Your task to perform on an android device: Open Chrome and go to settings Image 0: 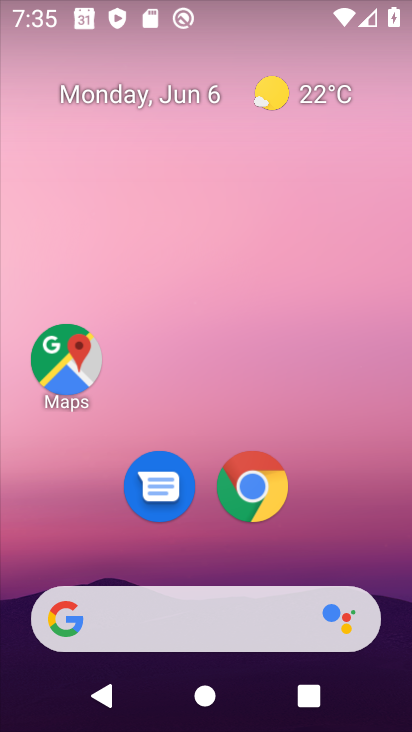
Step 0: drag from (399, 616) to (216, 62)
Your task to perform on an android device: Open Chrome and go to settings Image 1: 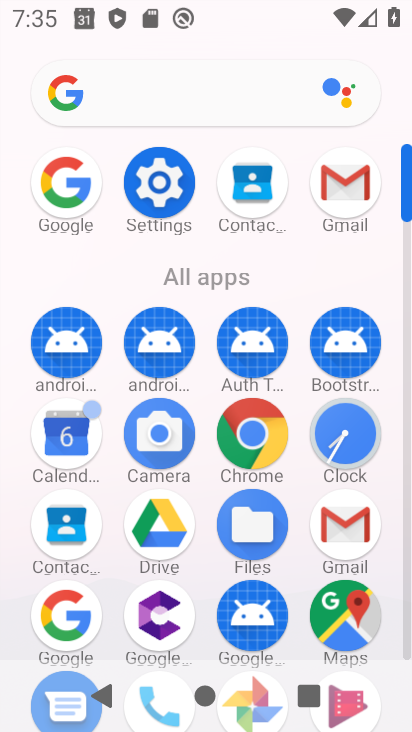
Step 1: click (252, 448)
Your task to perform on an android device: Open Chrome and go to settings Image 2: 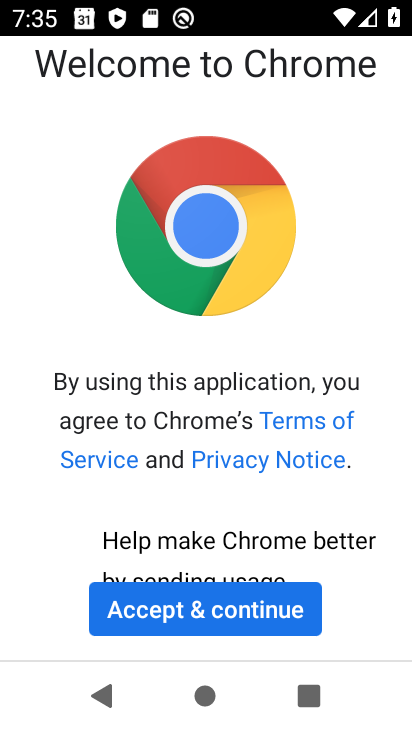
Step 2: click (227, 609)
Your task to perform on an android device: Open Chrome and go to settings Image 3: 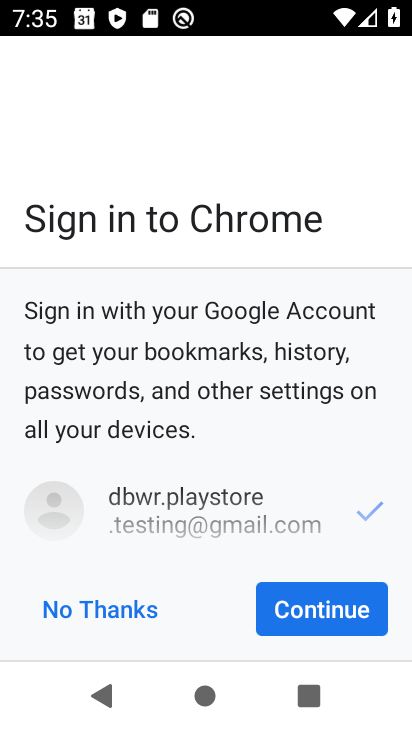
Step 3: click (287, 600)
Your task to perform on an android device: Open Chrome and go to settings Image 4: 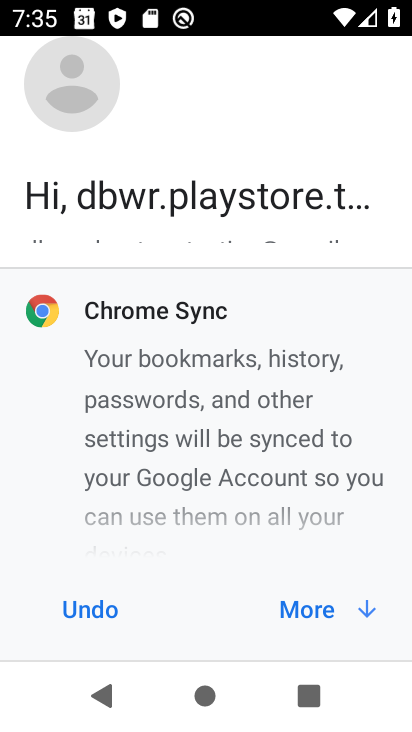
Step 4: click (287, 600)
Your task to perform on an android device: Open Chrome and go to settings Image 5: 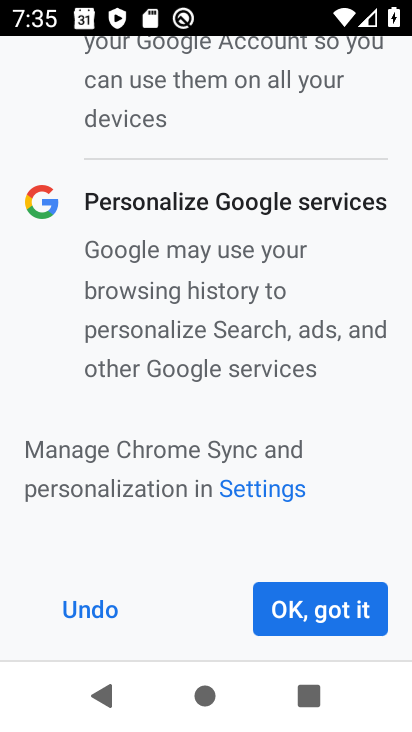
Step 5: click (287, 600)
Your task to perform on an android device: Open Chrome and go to settings Image 6: 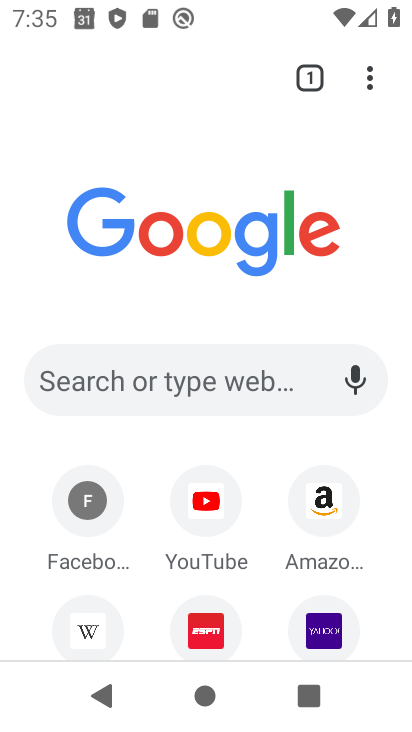
Step 6: click (370, 71)
Your task to perform on an android device: Open Chrome and go to settings Image 7: 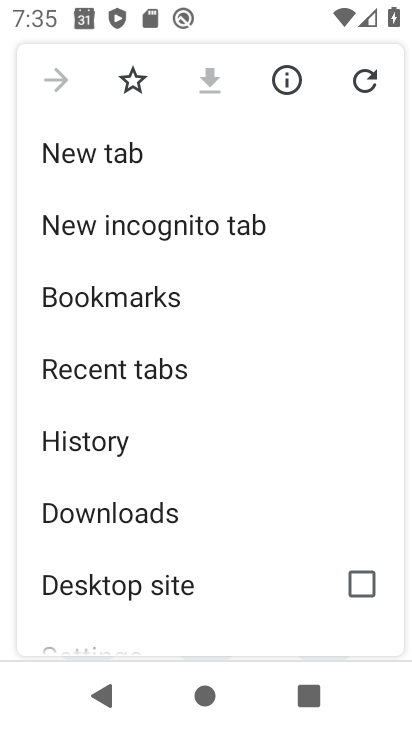
Step 7: drag from (141, 583) to (154, 174)
Your task to perform on an android device: Open Chrome and go to settings Image 8: 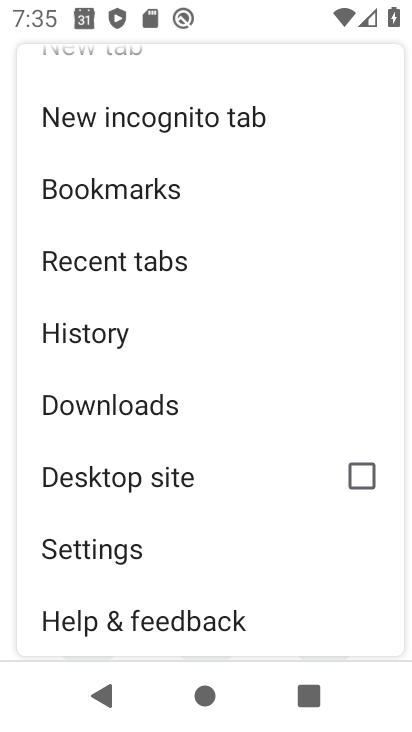
Step 8: click (95, 549)
Your task to perform on an android device: Open Chrome and go to settings Image 9: 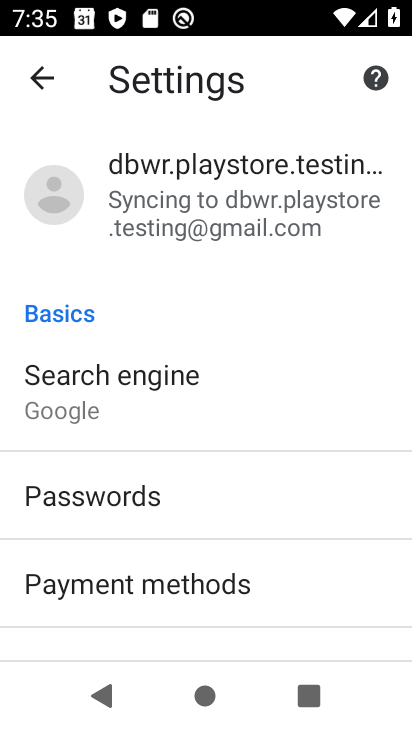
Step 9: task complete